Your task to perform on an android device: Add "bose soundsport free" to the cart on target.com Image 0: 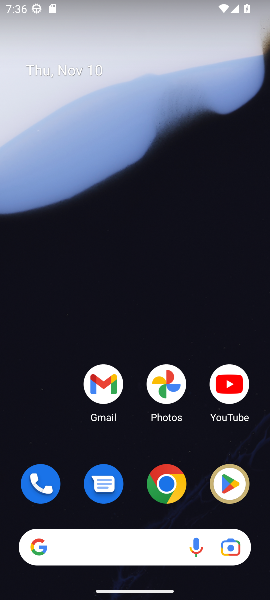
Step 0: click (168, 474)
Your task to perform on an android device: Add "bose soundsport free" to the cart on target.com Image 1: 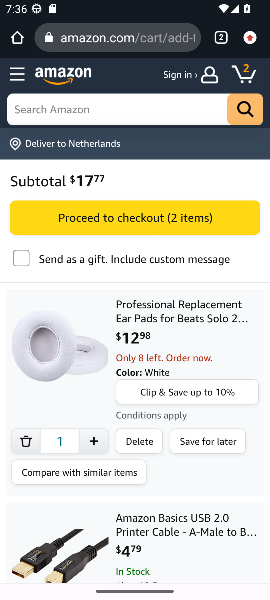
Step 1: click (130, 40)
Your task to perform on an android device: Add "bose soundsport free" to the cart on target.com Image 2: 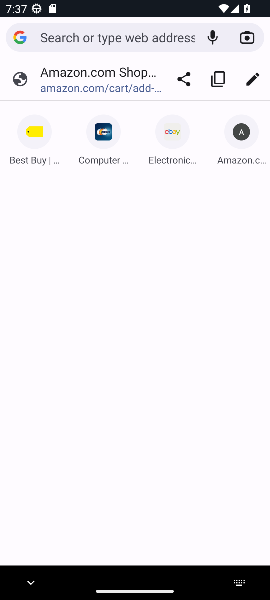
Step 2: type "target.com"
Your task to perform on an android device: Add "bose soundsport free" to the cart on target.com Image 3: 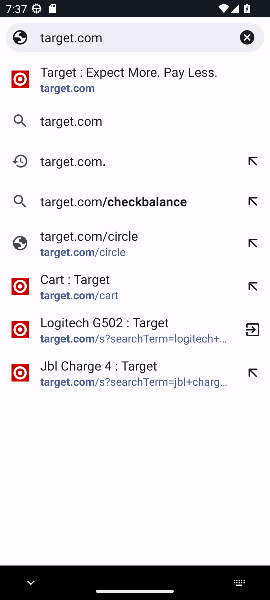
Step 3: click (66, 65)
Your task to perform on an android device: Add "bose soundsport free" to the cart on target.com Image 4: 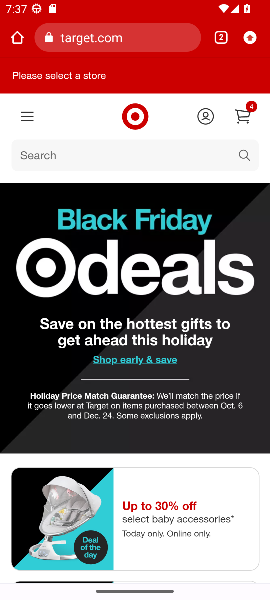
Step 4: click (244, 159)
Your task to perform on an android device: Add "bose soundsport free" to the cart on target.com Image 5: 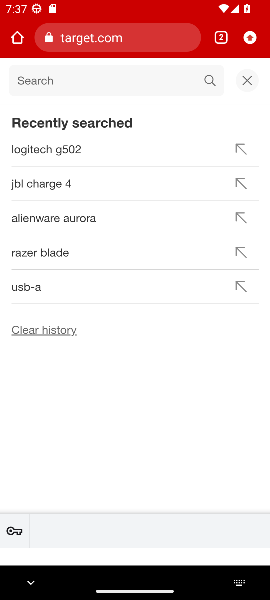
Step 5: type "bose soundsport free"
Your task to perform on an android device: Add "bose soundsport free" to the cart on target.com Image 6: 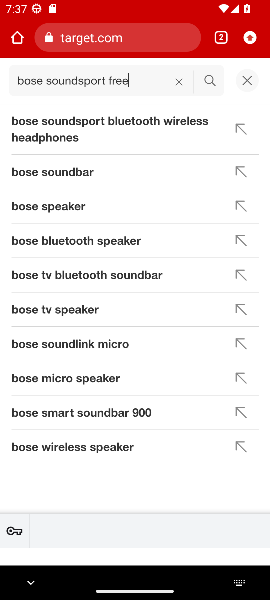
Step 6: click (209, 79)
Your task to perform on an android device: Add "bose soundsport free" to the cart on target.com Image 7: 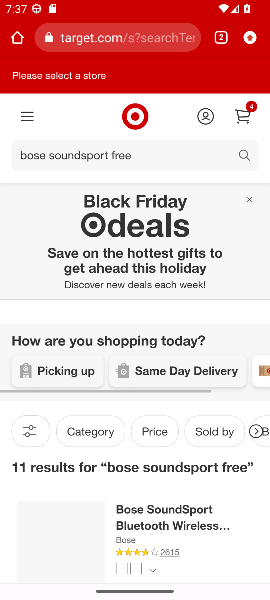
Step 7: task complete